Your task to perform on an android device: stop showing notifications on the lock screen Image 0: 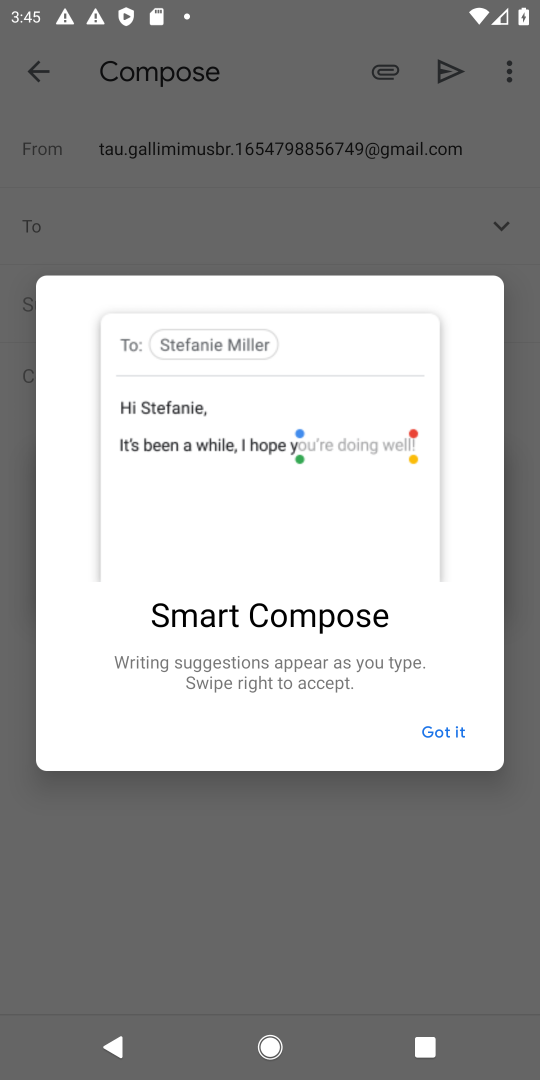
Step 0: press home button
Your task to perform on an android device: stop showing notifications on the lock screen Image 1: 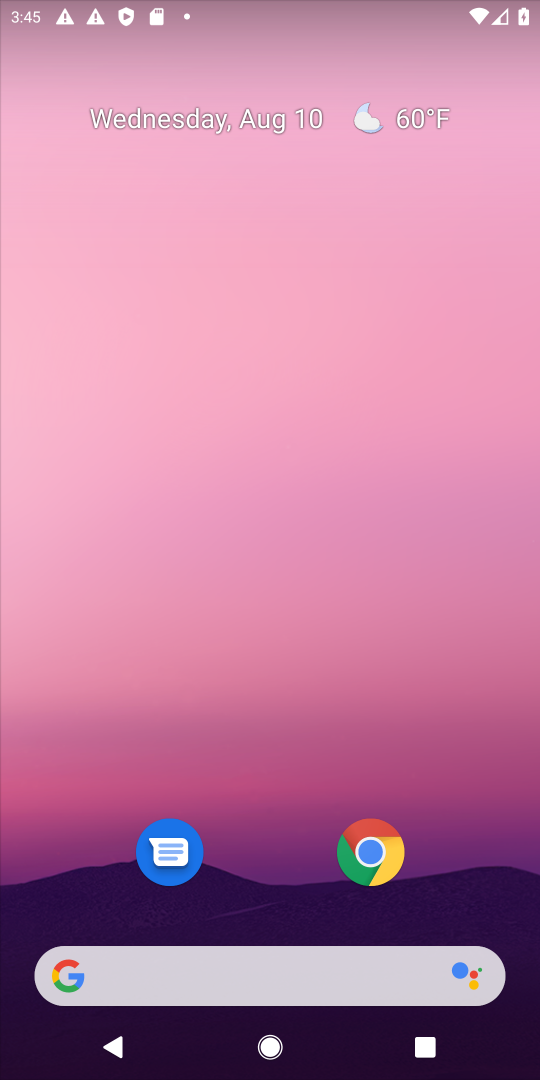
Step 1: drag from (457, 843) to (403, 177)
Your task to perform on an android device: stop showing notifications on the lock screen Image 2: 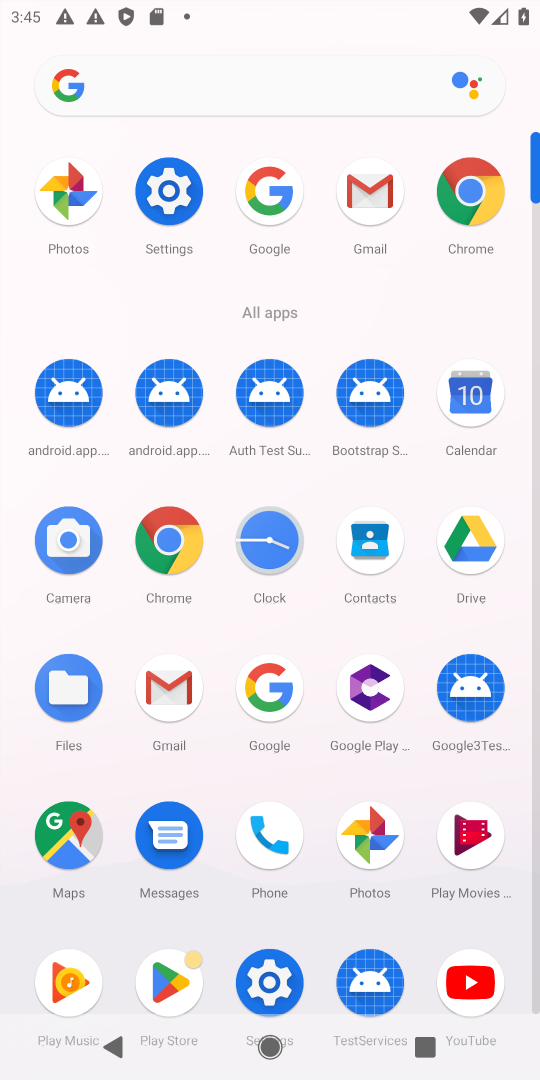
Step 2: click (274, 981)
Your task to perform on an android device: stop showing notifications on the lock screen Image 3: 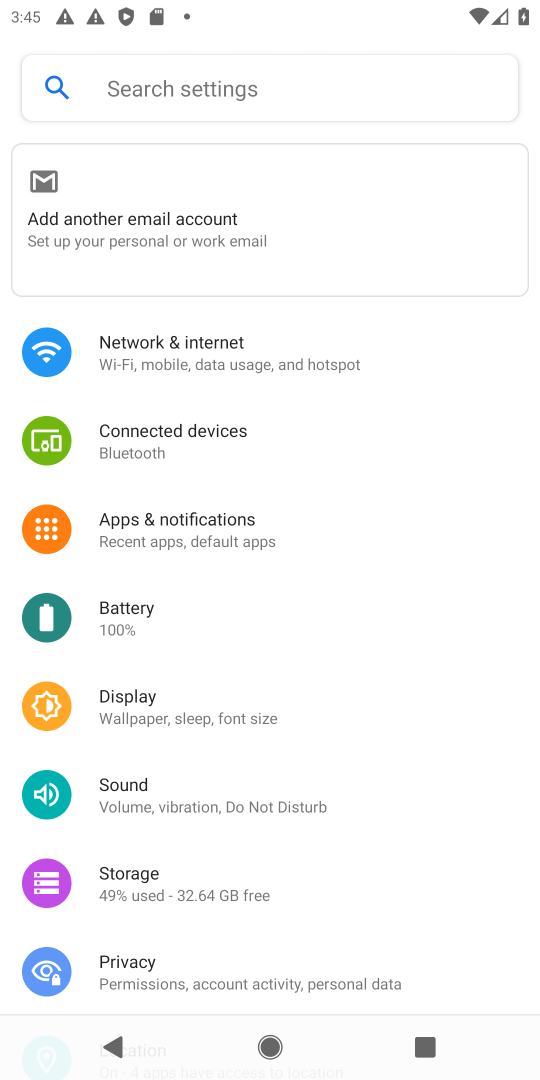
Step 3: click (162, 515)
Your task to perform on an android device: stop showing notifications on the lock screen Image 4: 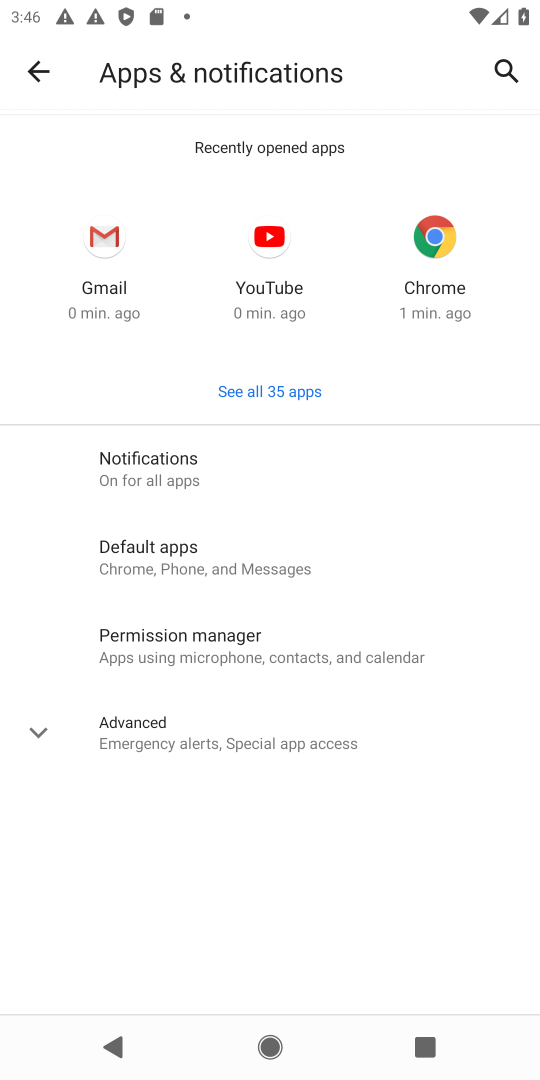
Step 4: click (185, 466)
Your task to perform on an android device: stop showing notifications on the lock screen Image 5: 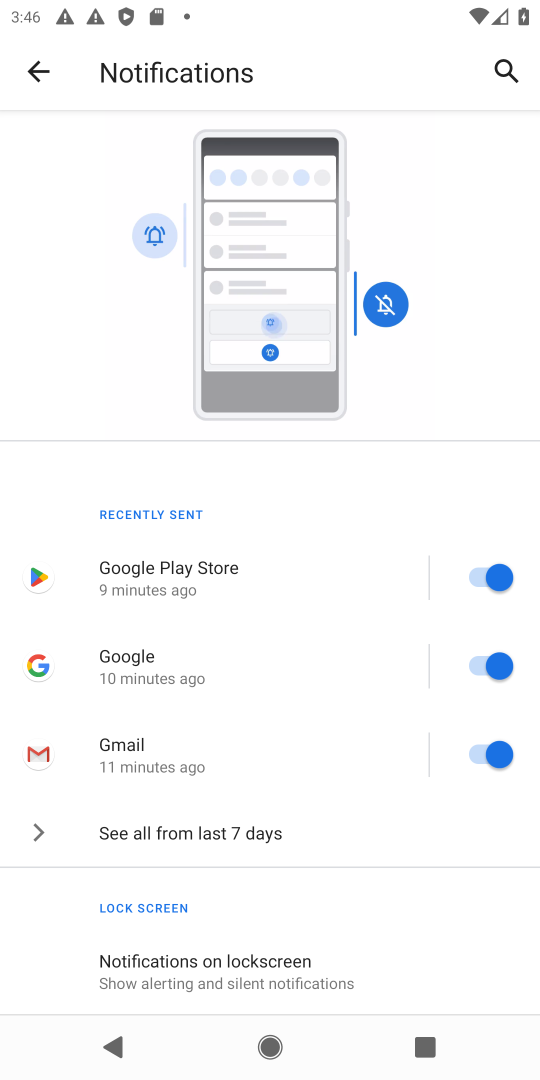
Step 5: click (253, 967)
Your task to perform on an android device: stop showing notifications on the lock screen Image 6: 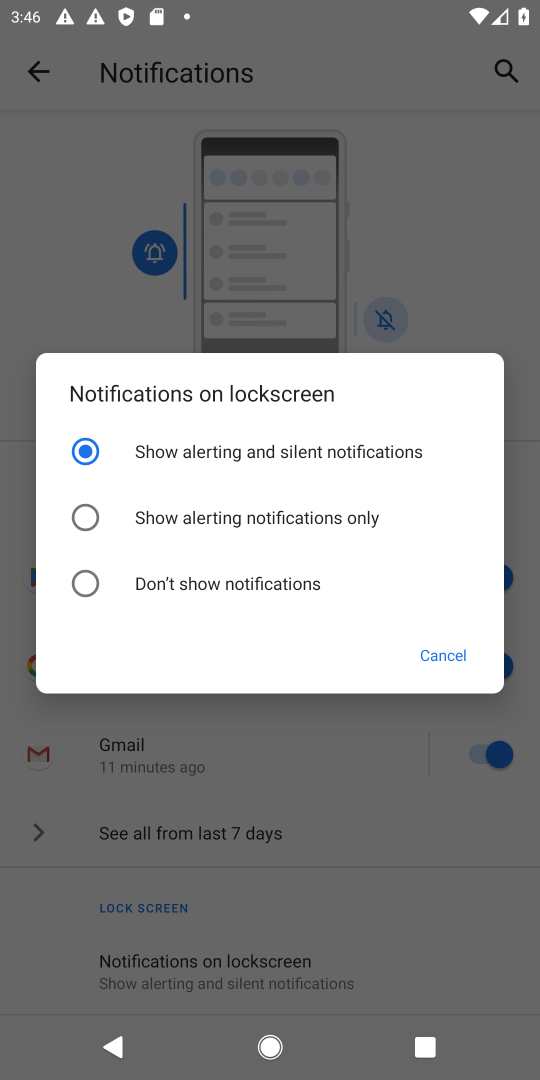
Step 6: click (303, 579)
Your task to perform on an android device: stop showing notifications on the lock screen Image 7: 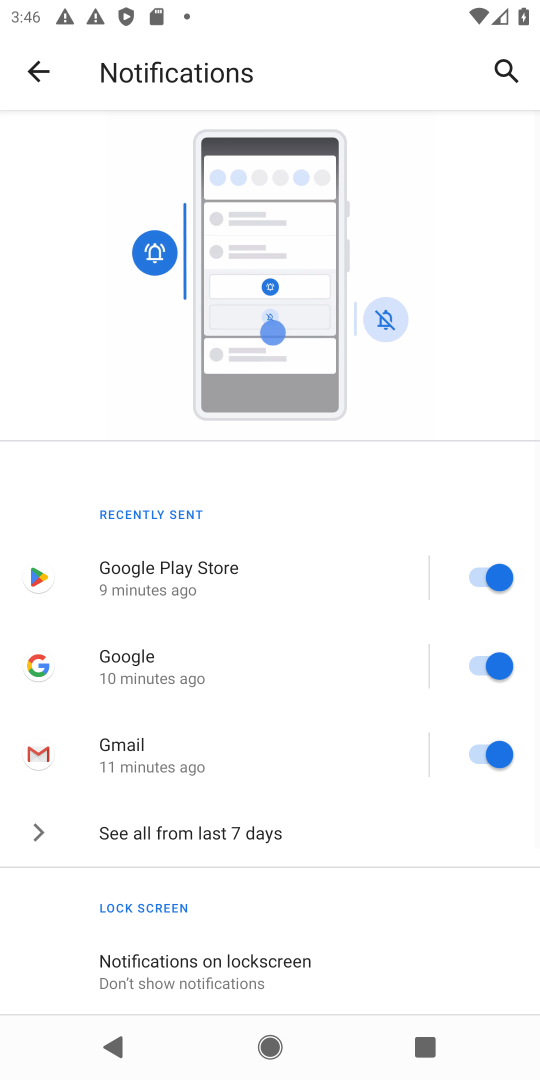
Step 7: task complete